Your task to perform on an android device: Open a new Chrome tab Image 0: 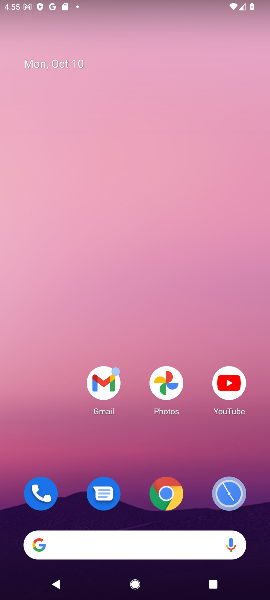
Step 0: click (154, 503)
Your task to perform on an android device: Open a new Chrome tab Image 1: 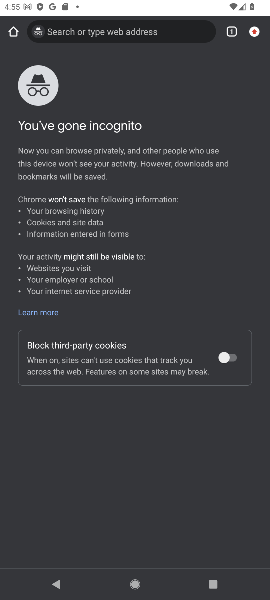
Step 1: click (10, 36)
Your task to perform on an android device: Open a new Chrome tab Image 2: 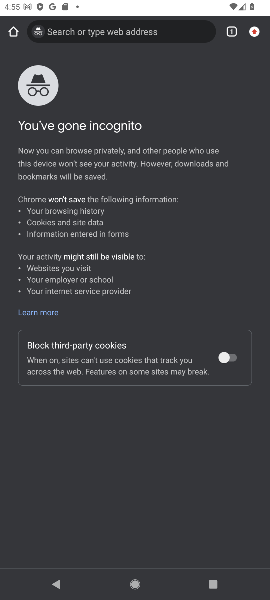
Step 2: click (15, 31)
Your task to perform on an android device: Open a new Chrome tab Image 3: 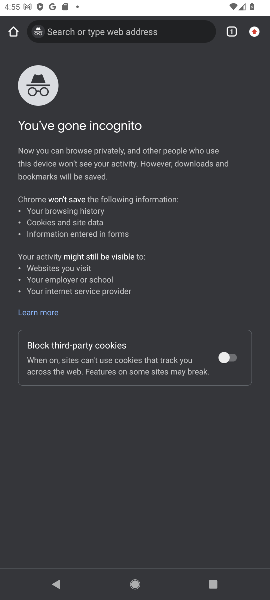
Step 3: click (15, 31)
Your task to perform on an android device: Open a new Chrome tab Image 4: 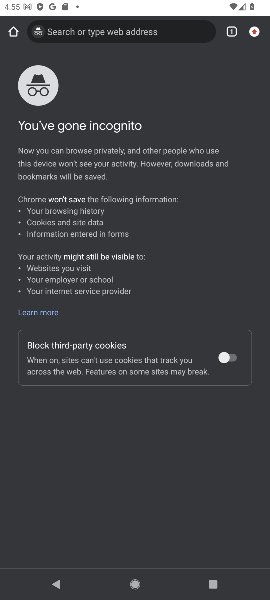
Step 4: click (15, 31)
Your task to perform on an android device: Open a new Chrome tab Image 5: 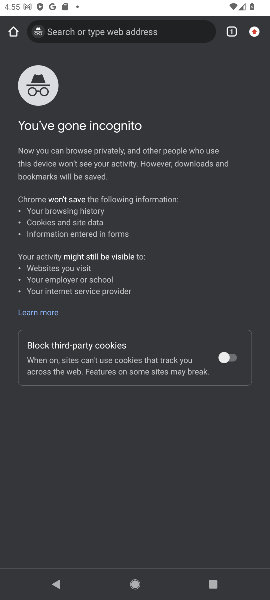
Step 5: click (15, 31)
Your task to perform on an android device: Open a new Chrome tab Image 6: 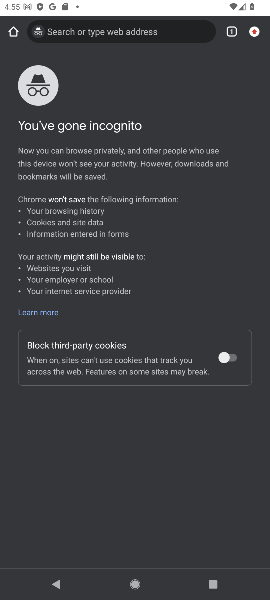
Step 6: click (230, 31)
Your task to perform on an android device: Open a new Chrome tab Image 7: 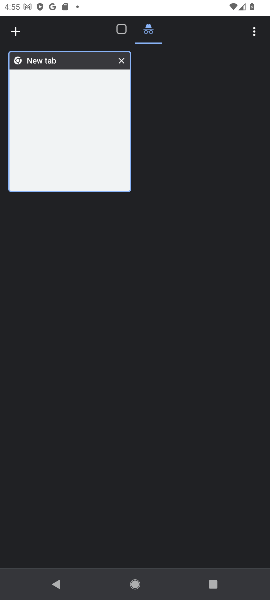
Step 7: click (124, 34)
Your task to perform on an android device: Open a new Chrome tab Image 8: 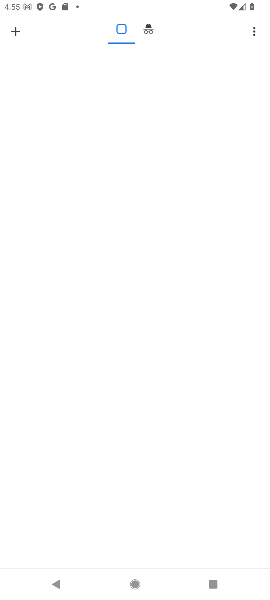
Step 8: click (18, 31)
Your task to perform on an android device: Open a new Chrome tab Image 9: 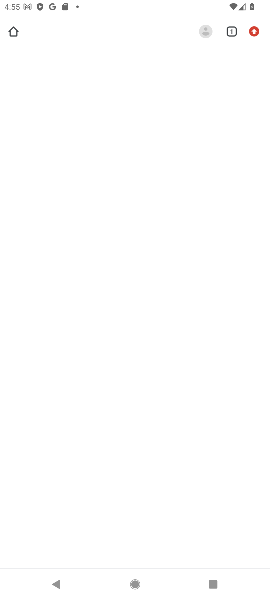
Step 9: task complete